Your task to perform on an android device: Go to eBay Image 0: 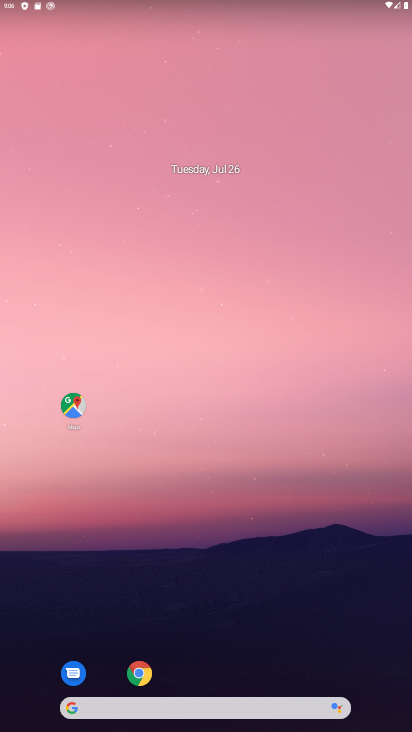
Step 0: click (140, 673)
Your task to perform on an android device: Go to eBay Image 1: 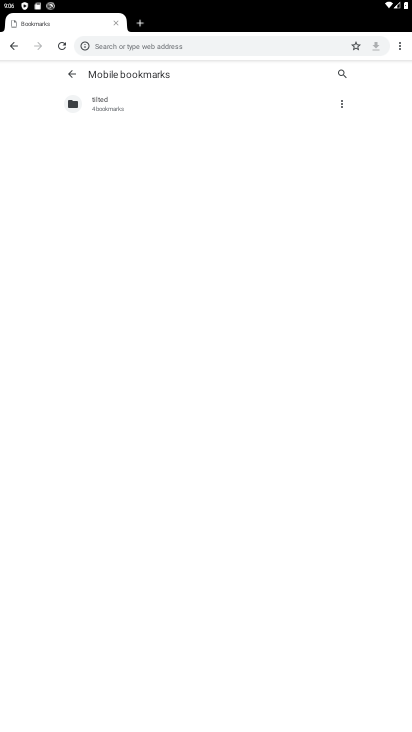
Step 1: click (246, 38)
Your task to perform on an android device: Go to eBay Image 2: 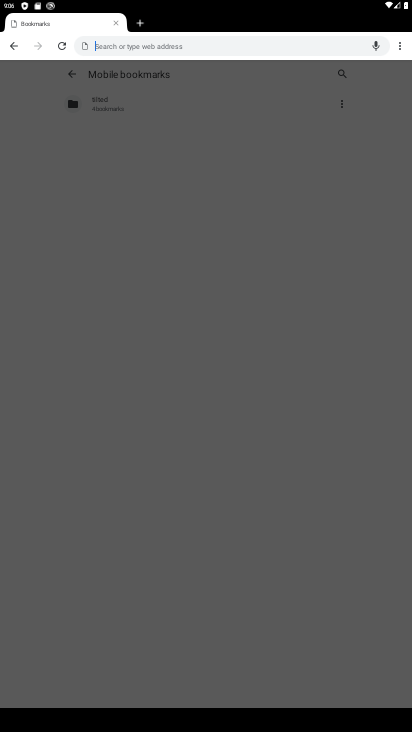
Step 2: type "eBay"
Your task to perform on an android device: Go to eBay Image 3: 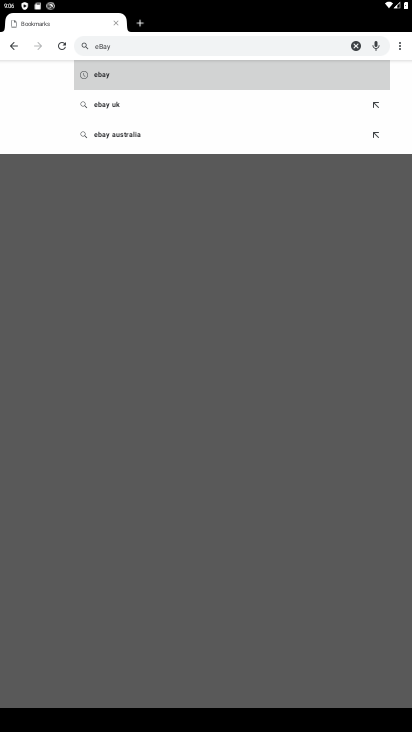
Step 3: click (137, 64)
Your task to perform on an android device: Go to eBay Image 4: 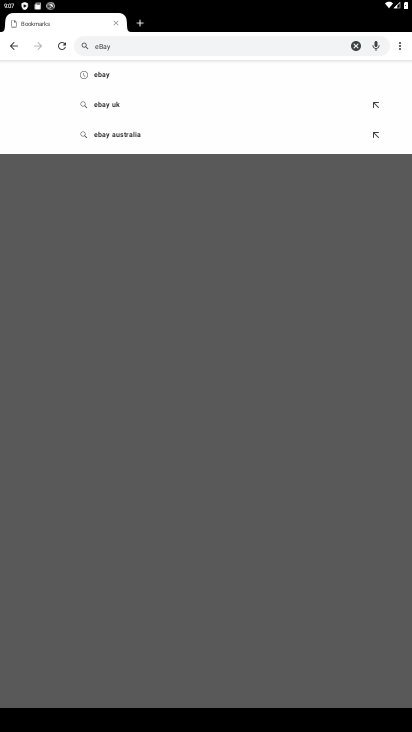
Step 4: click (95, 76)
Your task to perform on an android device: Go to eBay Image 5: 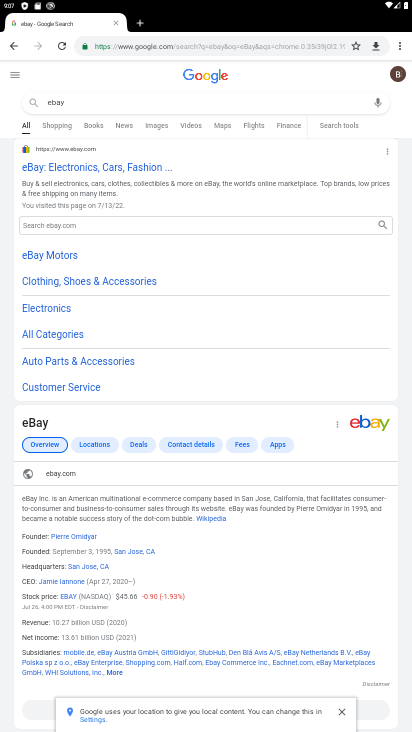
Step 5: click (66, 166)
Your task to perform on an android device: Go to eBay Image 6: 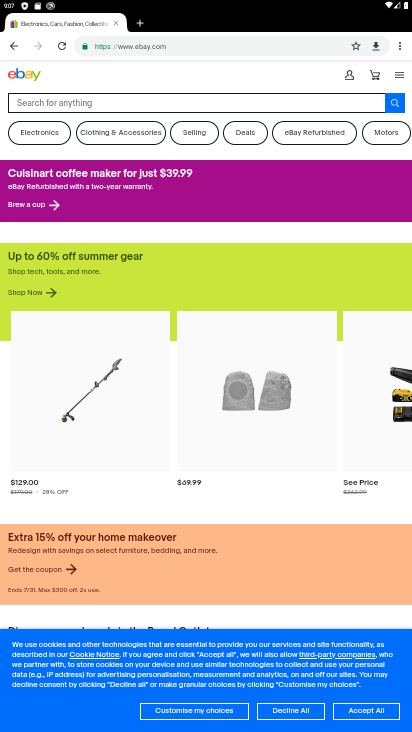
Step 6: task complete